Your task to perform on an android device: Go to sound settings Image 0: 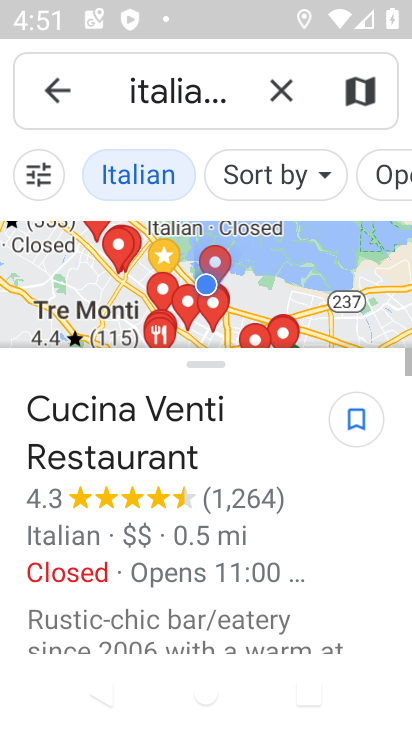
Step 0: press home button
Your task to perform on an android device: Go to sound settings Image 1: 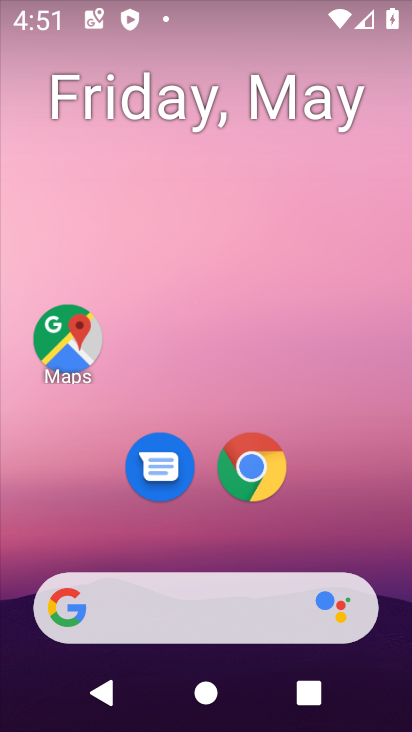
Step 1: drag from (325, 528) to (279, 13)
Your task to perform on an android device: Go to sound settings Image 2: 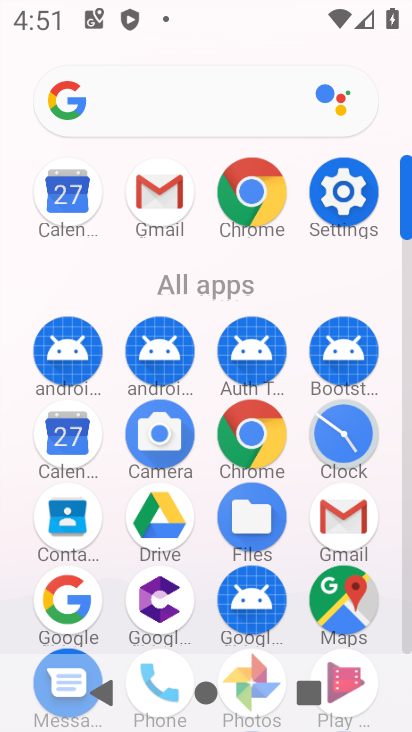
Step 2: click (354, 205)
Your task to perform on an android device: Go to sound settings Image 3: 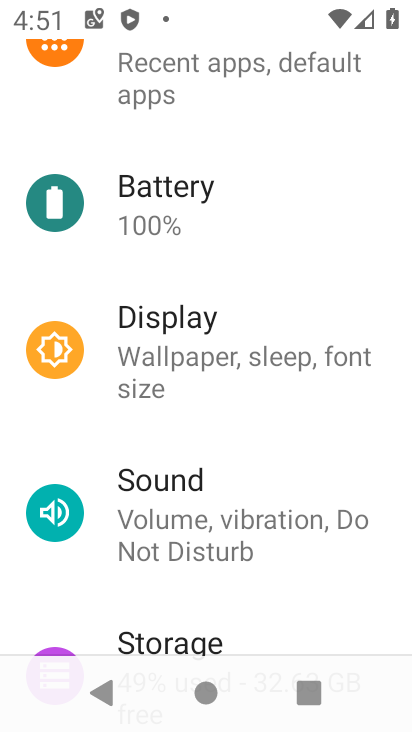
Step 3: click (214, 497)
Your task to perform on an android device: Go to sound settings Image 4: 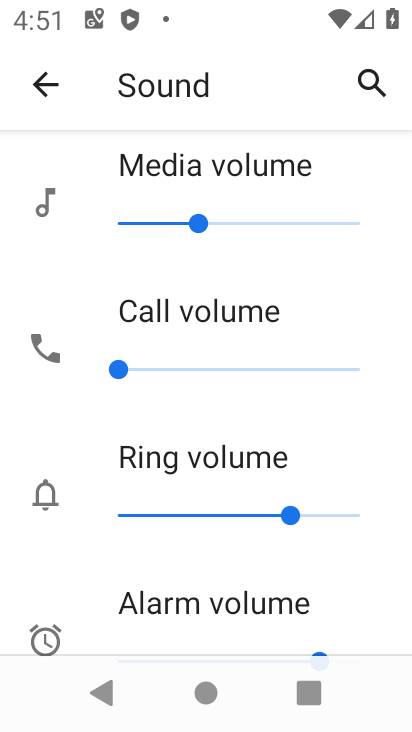
Step 4: task complete